Your task to perform on an android device: check google app version Image 0: 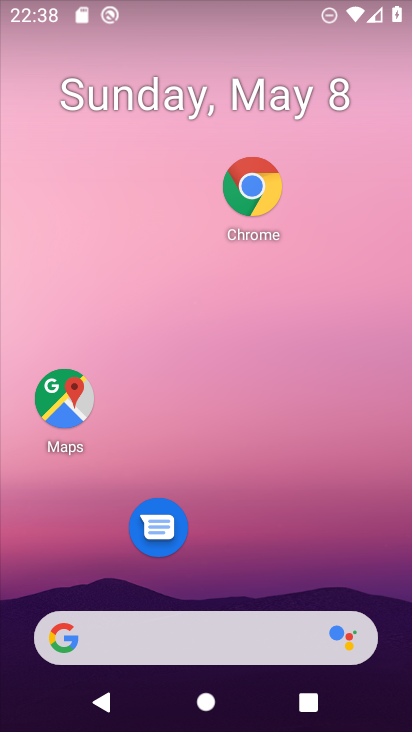
Step 0: drag from (331, 452) to (347, 290)
Your task to perform on an android device: check google app version Image 1: 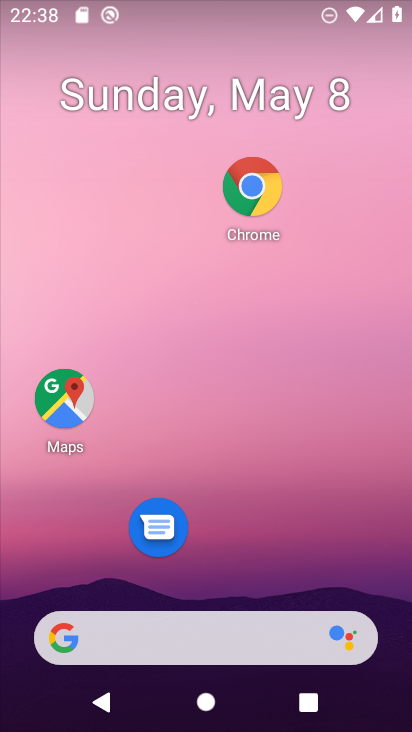
Step 1: drag from (263, 489) to (290, 253)
Your task to perform on an android device: check google app version Image 2: 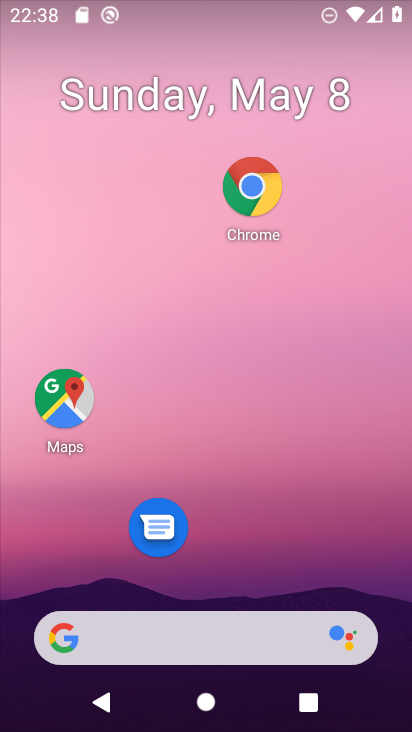
Step 2: drag from (277, 441) to (338, 132)
Your task to perform on an android device: check google app version Image 3: 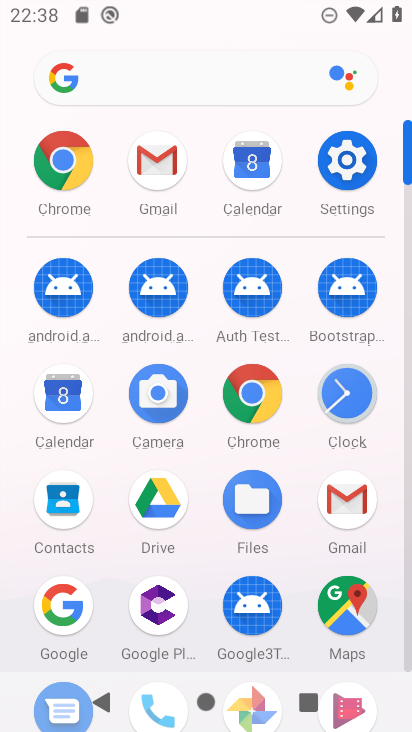
Step 3: click (64, 596)
Your task to perform on an android device: check google app version Image 4: 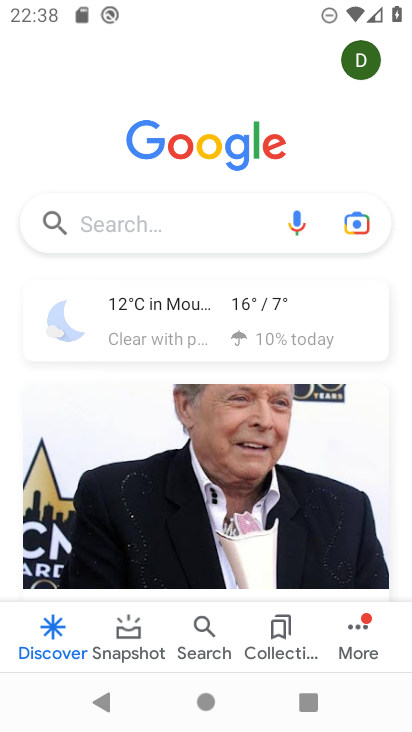
Step 4: click (355, 631)
Your task to perform on an android device: check google app version Image 5: 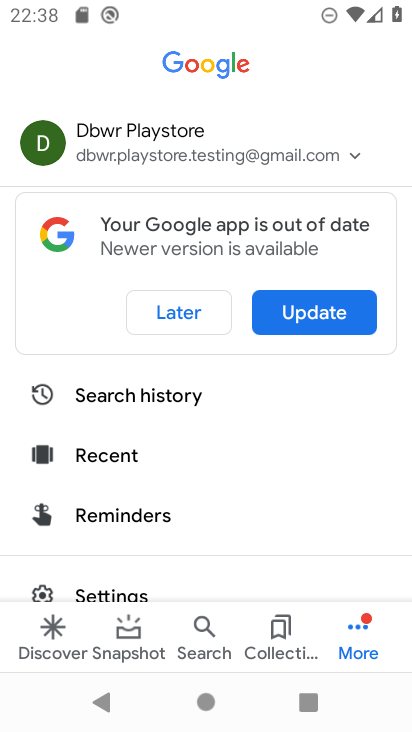
Step 5: drag from (154, 568) to (185, 382)
Your task to perform on an android device: check google app version Image 6: 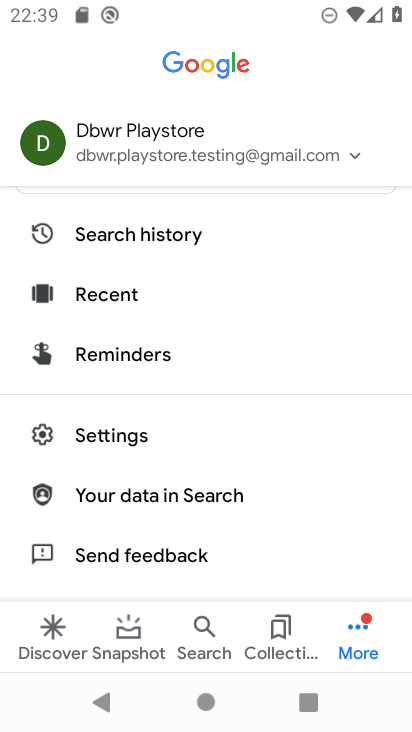
Step 6: click (154, 427)
Your task to perform on an android device: check google app version Image 7: 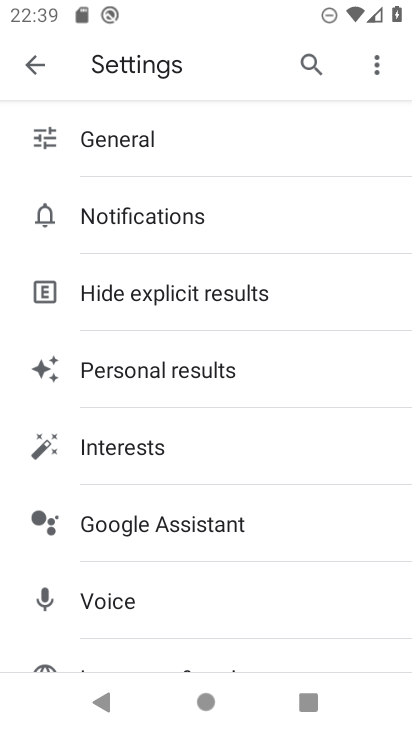
Step 7: drag from (225, 566) to (295, 192)
Your task to perform on an android device: check google app version Image 8: 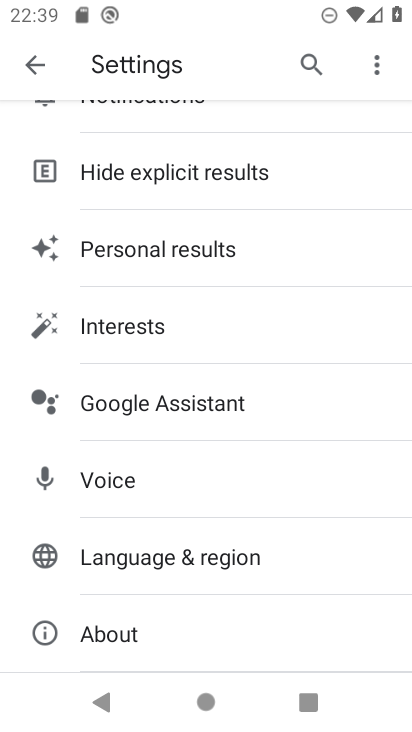
Step 8: click (264, 624)
Your task to perform on an android device: check google app version Image 9: 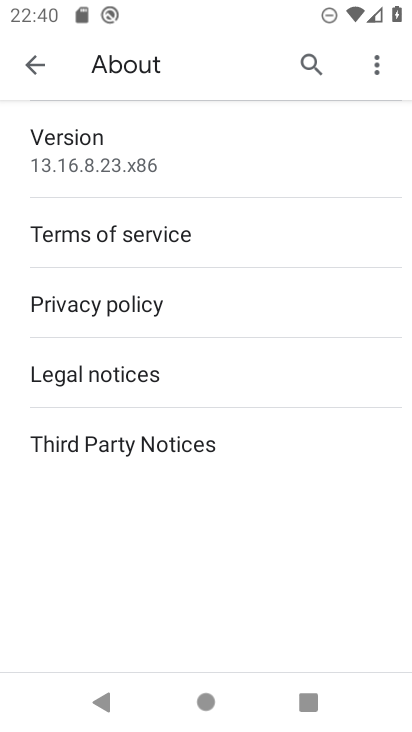
Step 9: task complete